Your task to perform on an android device: Open Reddit.com Image 0: 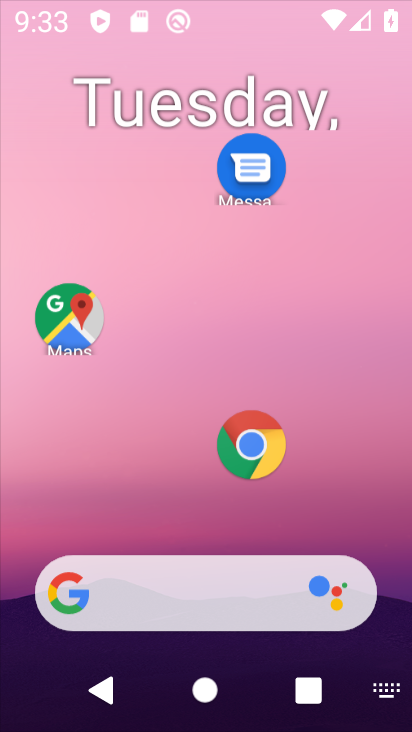
Step 0: click (261, 77)
Your task to perform on an android device: Open Reddit.com Image 1: 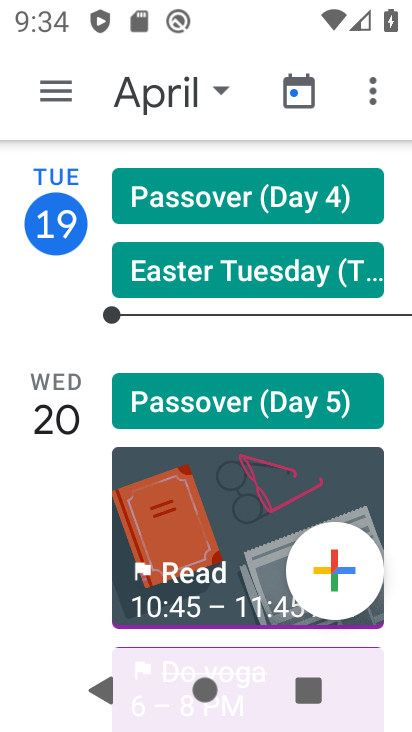
Step 1: press back button
Your task to perform on an android device: Open Reddit.com Image 2: 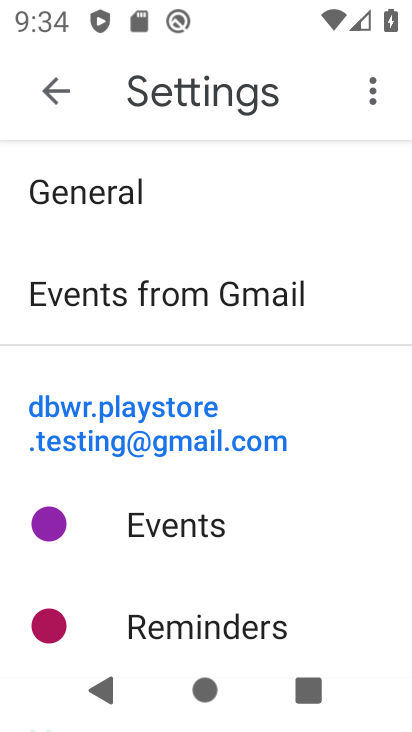
Step 2: press back button
Your task to perform on an android device: Open Reddit.com Image 3: 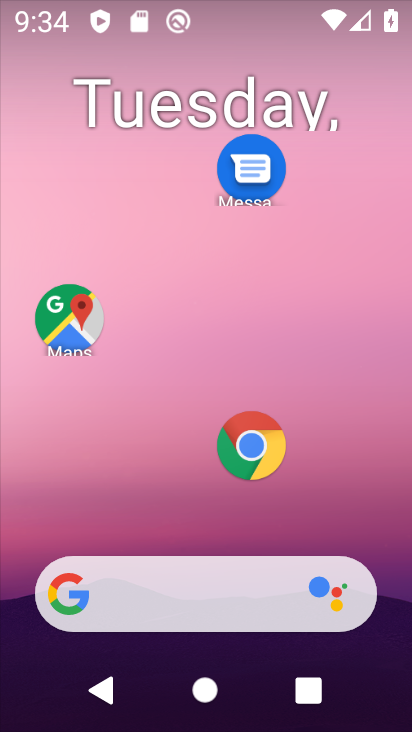
Step 3: click (250, 436)
Your task to perform on an android device: Open Reddit.com Image 4: 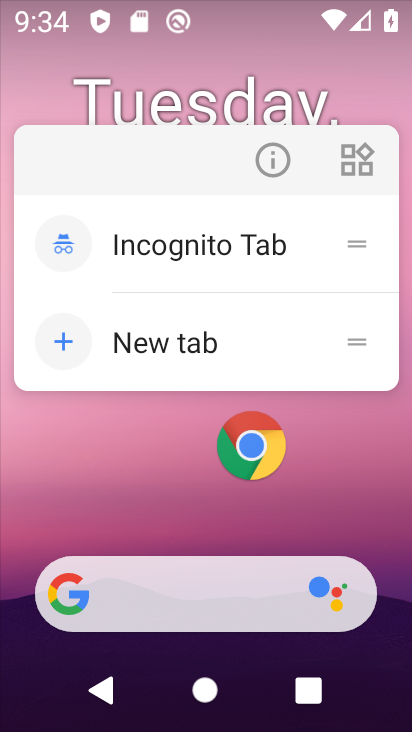
Step 4: click (257, 436)
Your task to perform on an android device: Open Reddit.com Image 5: 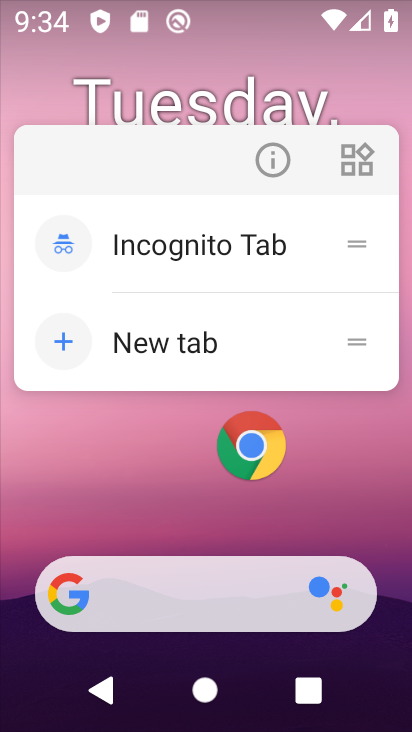
Step 5: click (266, 448)
Your task to perform on an android device: Open Reddit.com Image 6: 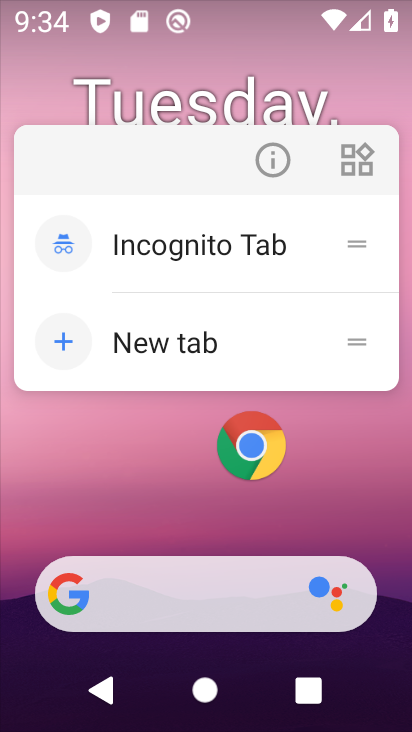
Step 6: click (256, 451)
Your task to perform on an android device: Open Reddit.com Image 7: 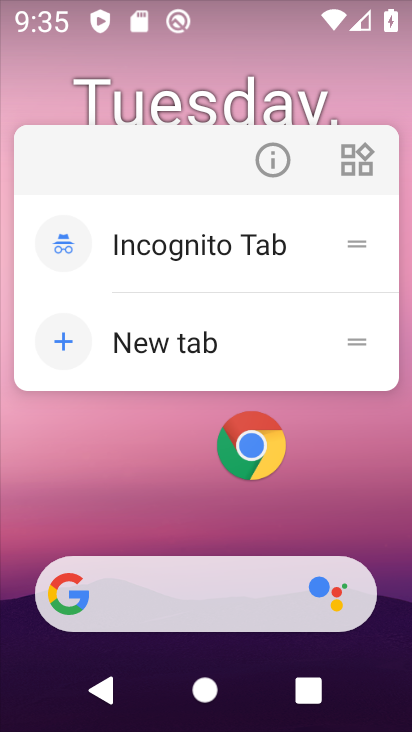
Step 7: click (251, 438)
Your task to perform on an android device: Open Reddit.com Image 8: 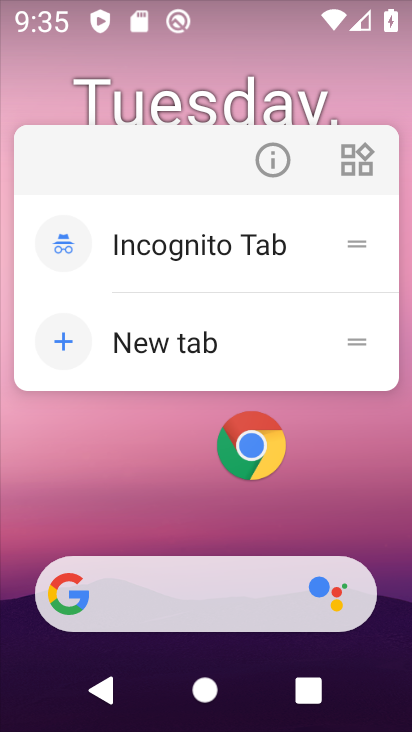
Step 8: click (257, 455)
Your task to perform on an android device: Open Reddit.com Image 9: 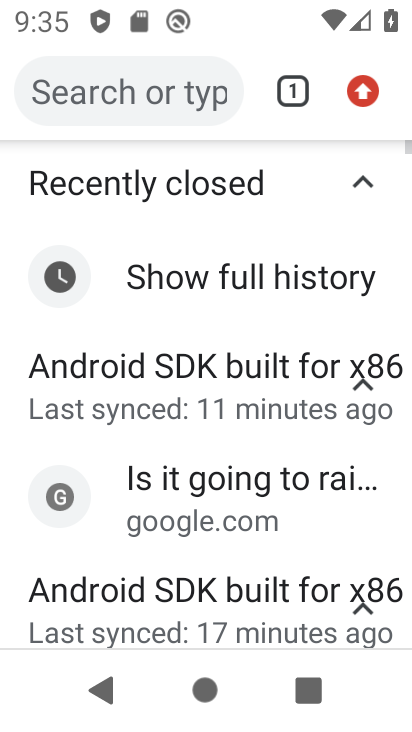
Step 9: click (141, 86)
Your task to perform on an android device: Open Reddit.com Image 10: 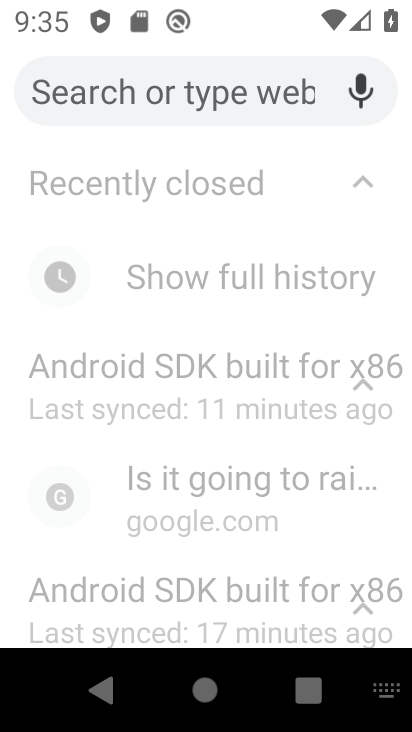
Step 10: type "reddit.com"
Your task to perform on an android device: Open Reddit.com Image 11: 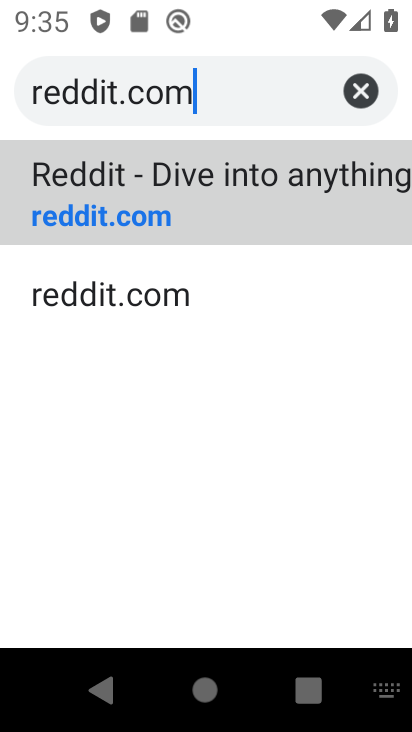
Step 11: click (154, 211)
Your task to perform on an android device: Open Reddit.com Image 12: 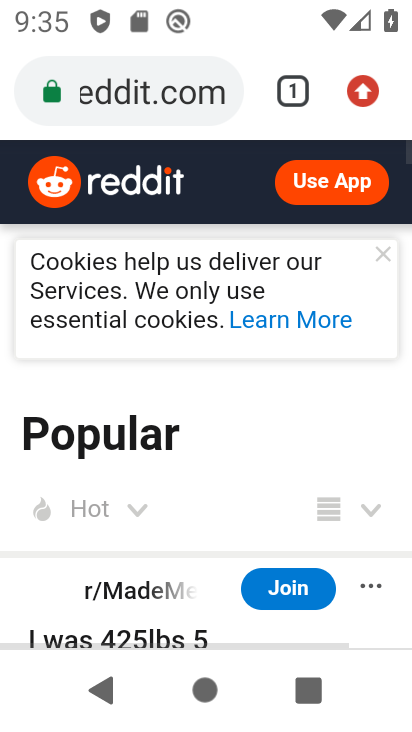
Step 12: task complete